Your task to perform on an android device: turn pop-ups on in chrome Image 0: 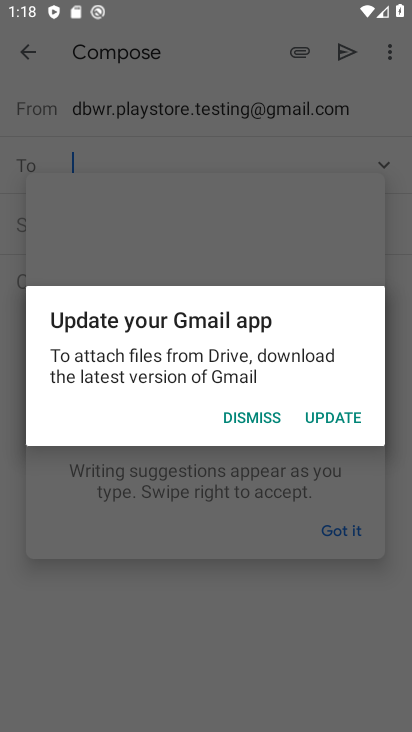
Step 0: press home button
Your task to perform on an android device: turn pop-ups on in chrome Image 1: 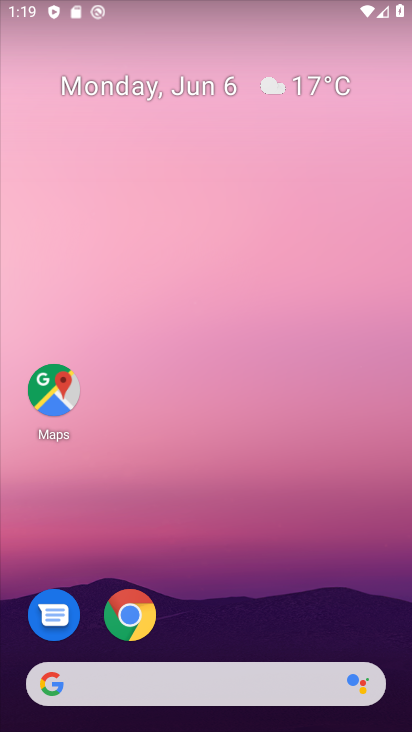
Step 1: click (148, 624)
Your task to perform on an android device: turn pop-ups on in chrome Image 2: 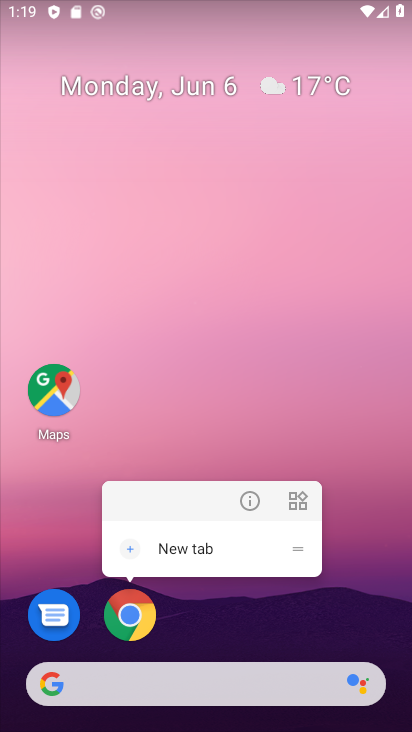
Step 2: click (148, 621)
Your task to perform on an android device: turn pop-ups on in chrome Image 3: 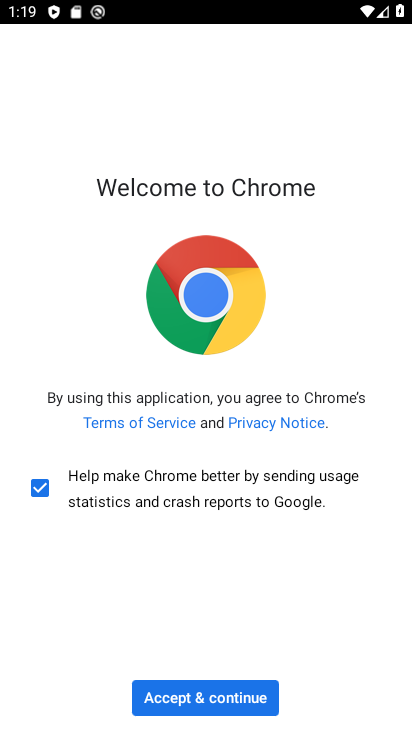
Step 3: click (176, 686)
Your task to perform on an android device: turn pop-ups on in chrome Image 4: 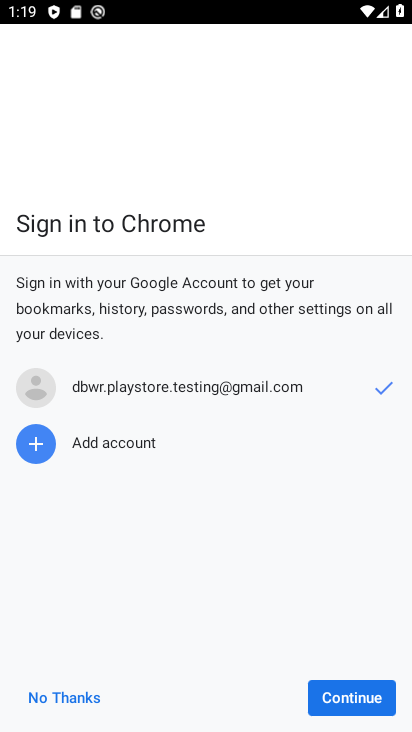
Step 4: click (357, 704)
Your task to perform on an android device: turn pop-ups on in chrome Image 5: 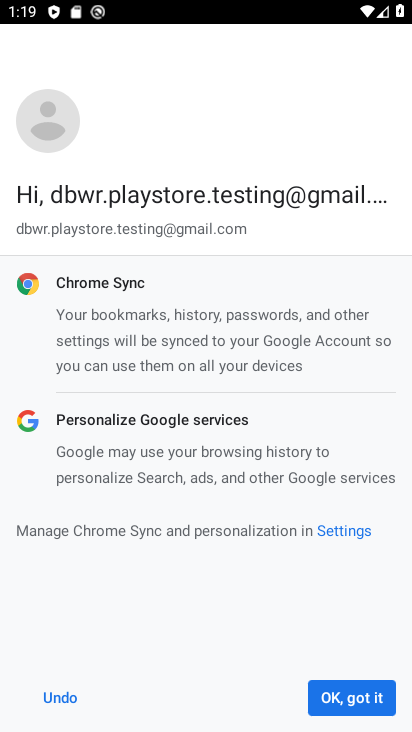
Step 5: click (357, 704)
Your task to perform on an android device: turn pop-ups on in chrome Image 6: 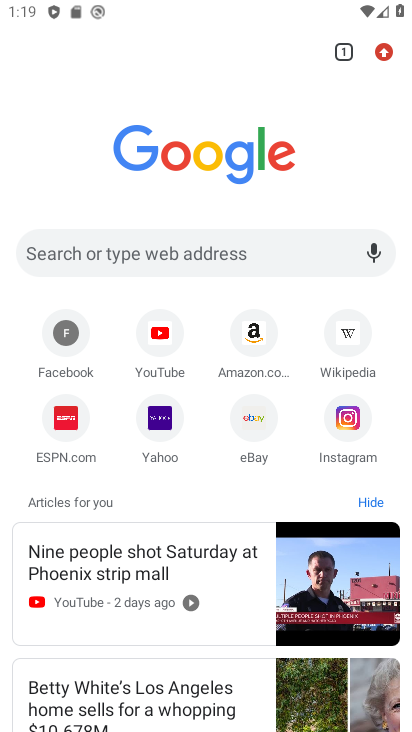
Step 6: drag from (379, 58) to (275, 499)
Your task to perform on an android device: turn pop-ups on in chrome Image 7: 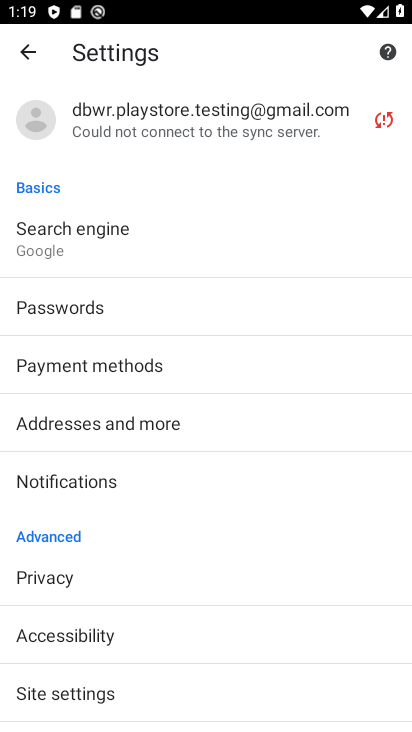
Step 7: drag from (160, 665) to (248, 306)
Your task to perform on an android device: turn pop-ups on in chrome Image 8: 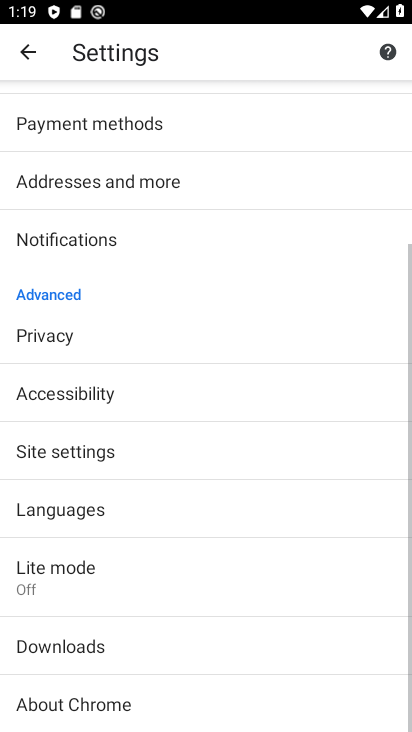
Step 8: click (139, 470)
Your task to perform on an android device: turn pop-ups on in chrome Image 9: 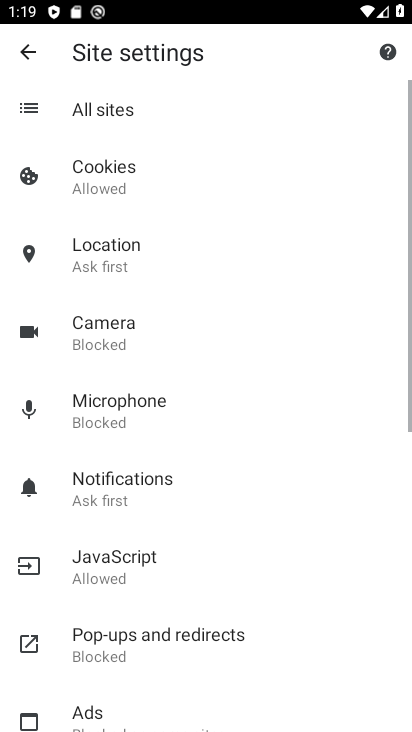
Step 9: drag from (144, 675) to (216, 363)
Your task to perform on an android device: turn pop-ups on in chrome Image 10: 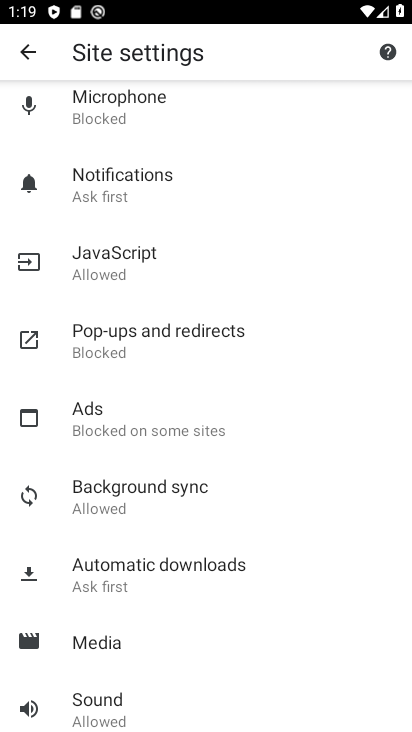
Step 10: click (225, 347)
Your task to perform on an android device: turn pop-ups on in chrome Image 11: 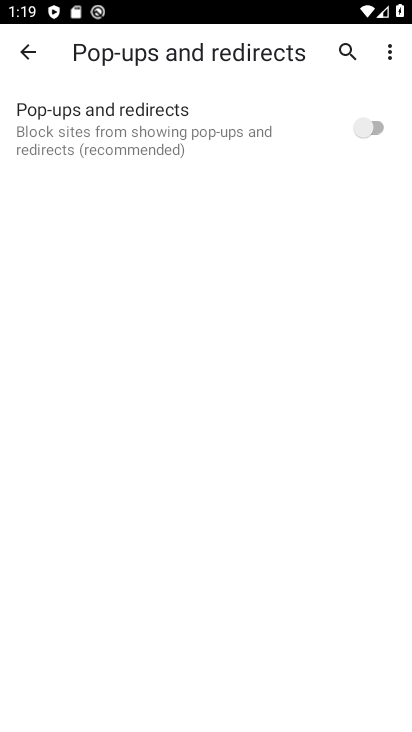
Step 11: click (402, 129)
Your task to perform on an android device: turn pop-ups on in chrome Image 12: 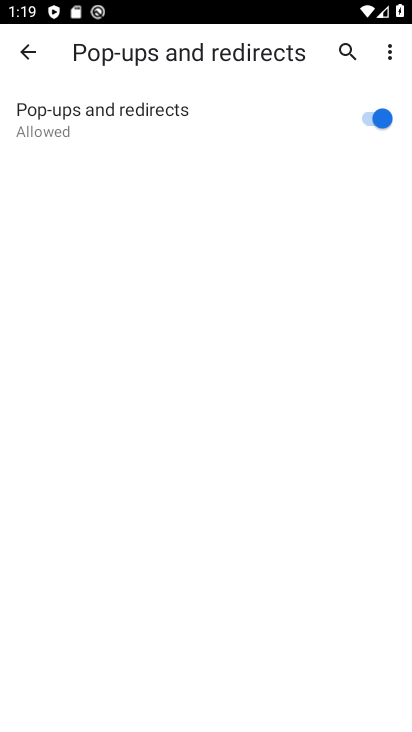
Step 12: task complete